Your task to perform on an android device: What's the weather? Image 0: 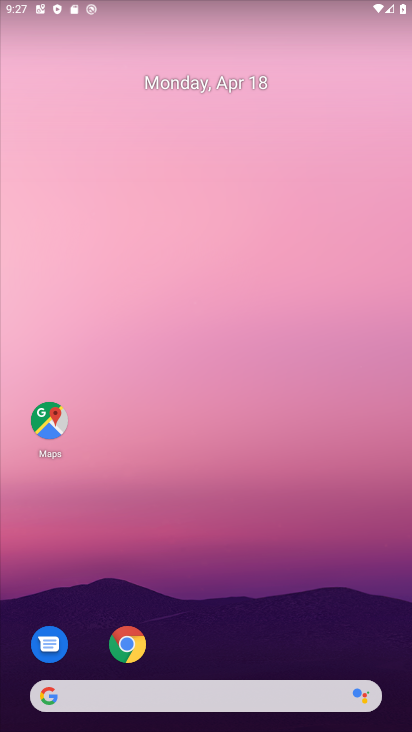
Step 0: click (166, 694)
Your task to perform on an android device: What's the weather? Image 1: 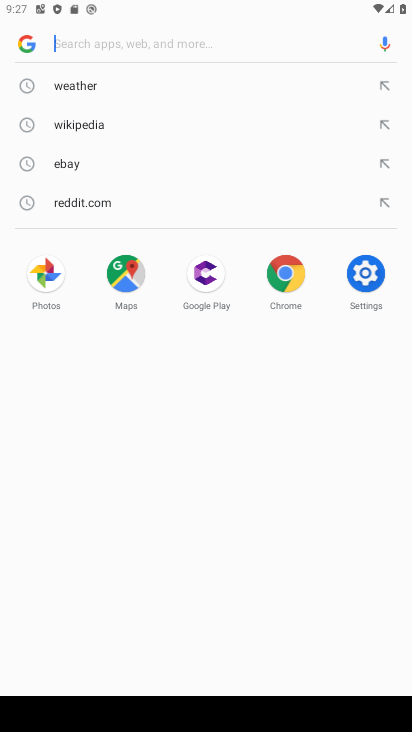
Step 1: click (73, 87)
Your task to perform on an android device: What's the weather? Image 2: 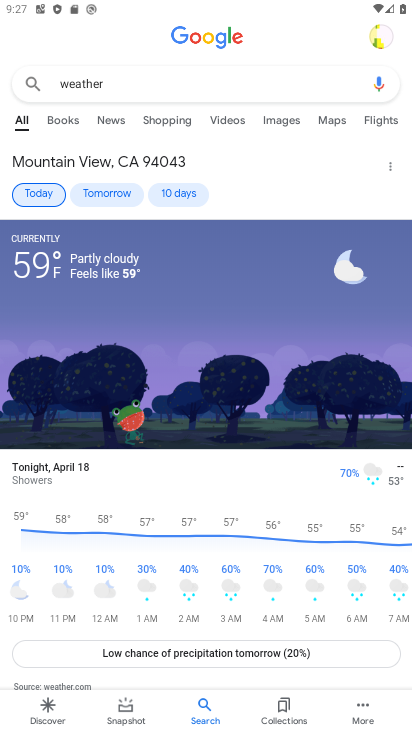
Step 2: task complete